Your task to perform on an android device: Go to privacy settings Image 0: 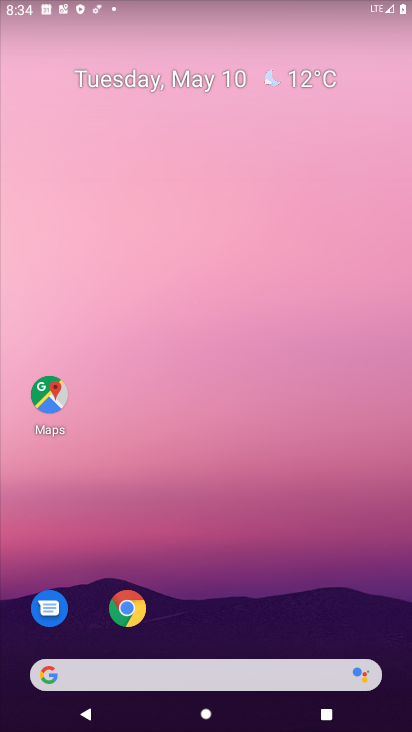
Step 0: drag from (214, 681) to (236, 301)
Your task to perform on an android device: Go to privacy settings Image 1: 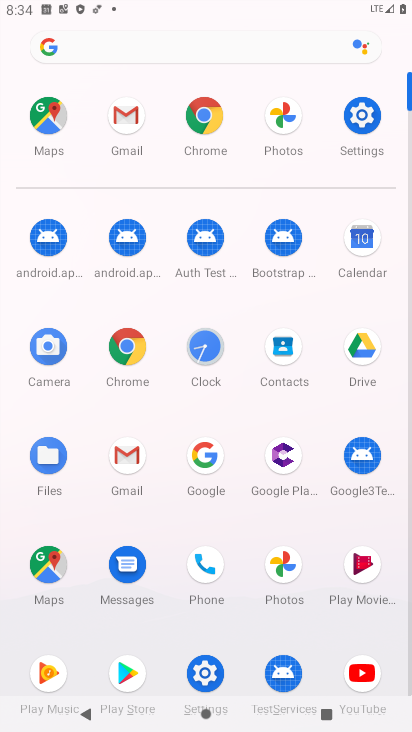
Step 1: click (360, 126)
Your task to perform on an android device: Go to privacy settings Image 2: 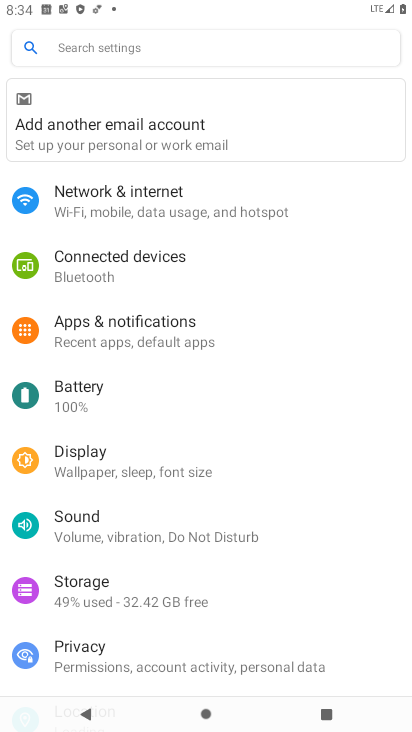
Step 2: click (57, 650)
Your task to perform on an android device: Go to privacy settings Image 3: 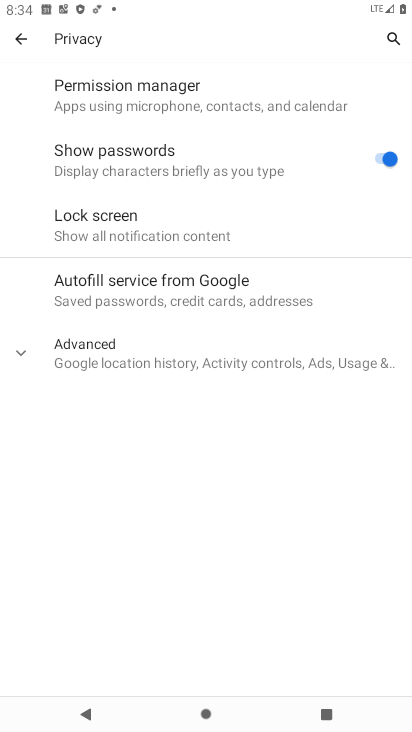
Step 3: task complete